Your task to perform on an android device: manage bookmarks in the chrome app Image 0: 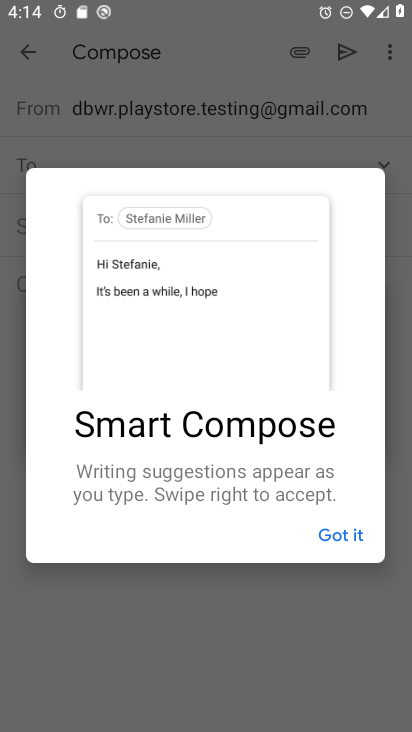
Step 0: press home button
Your task to perform on an android device: manage bookmarks in the chrome app Image 1: 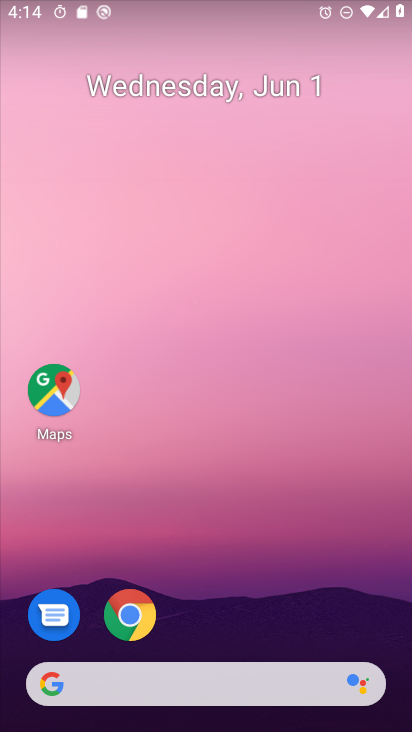
Step 1: drag from (281, 617) to (369, 37)
Your task to perform on an android device: manage bookmarks in the chrome app Image 2: 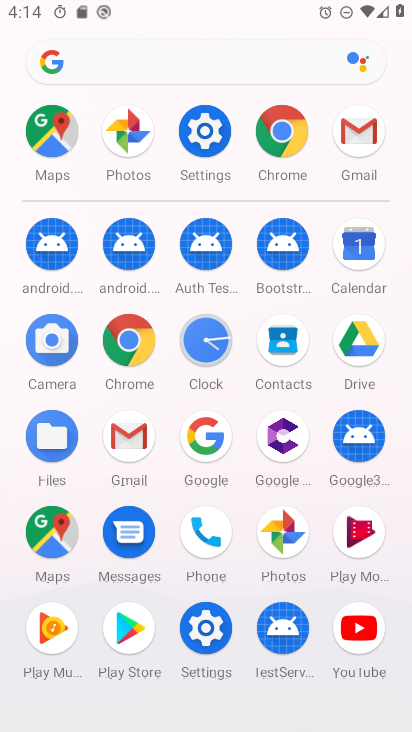
Step 2: click (138, 348)
Your task to perform on an android device: manage bookmarks in the chrome app Image 3: 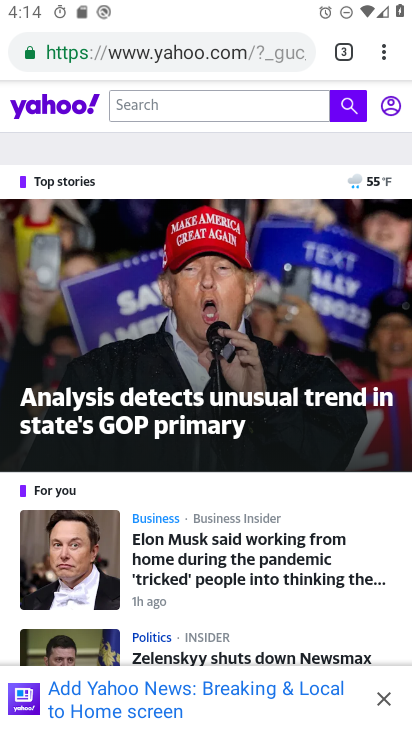
Step 3: task complete